Your task to perform on an android device: open app "McDonald's" (install if not already installed), go to login, and select forgot password Image 0: 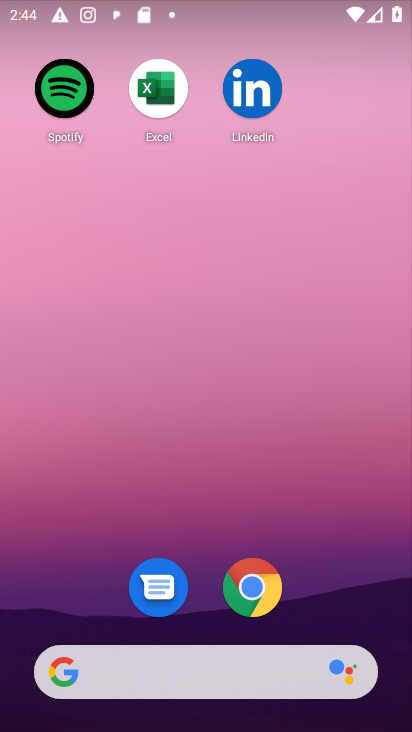
Step 0: press home button
Your task to perform on an android device: open app "McDonald's" (install if not already installed), go to login, and select forgot password Image 1: 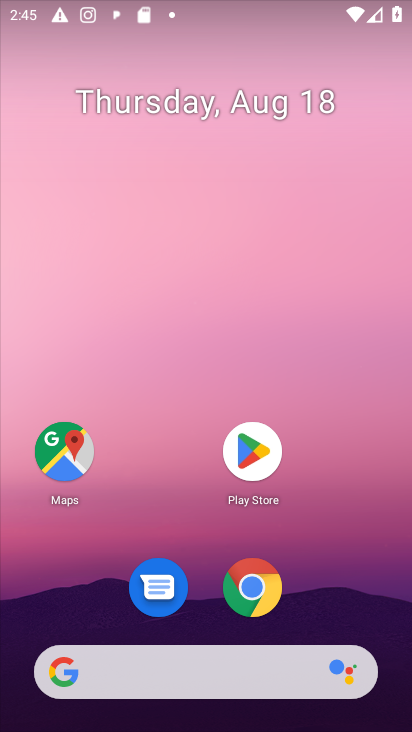
Step 1: click (242, 454)
Your task to perform on an android device: open app "McDonald's" (install if not already installed), go to login, and select forgot password Image 2: 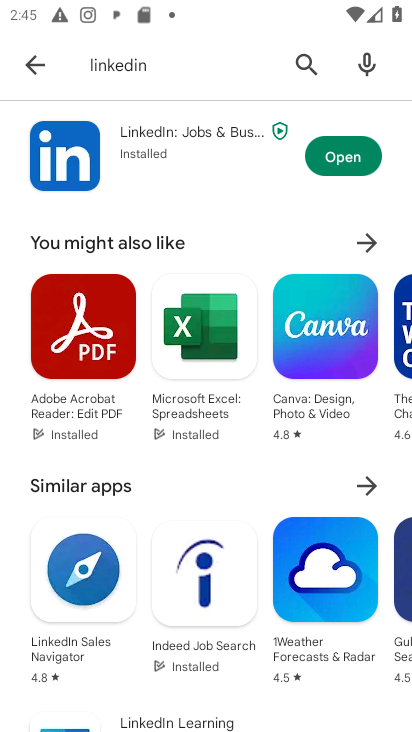
Step 2: click (308, 70)
Your task to perform on an android device: open app "McDonald's" (install if not already installed), go to login, and select forgot password Image 3: 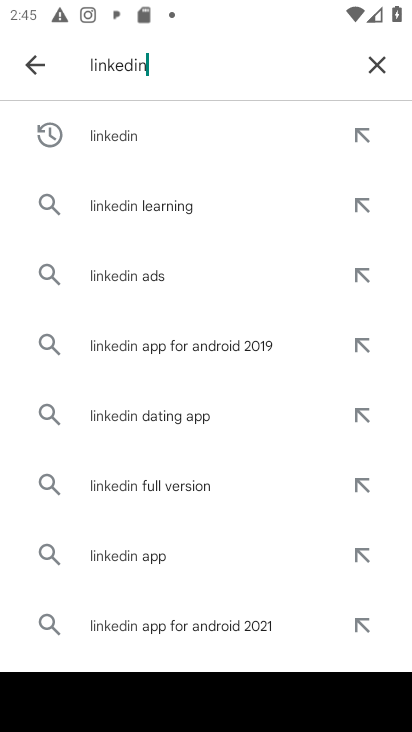
Step 3: click (373, 61)
Your task to perform on an android device: open app "McDonald's" (install if not already installed), go to login, and select forgot password Image 4: 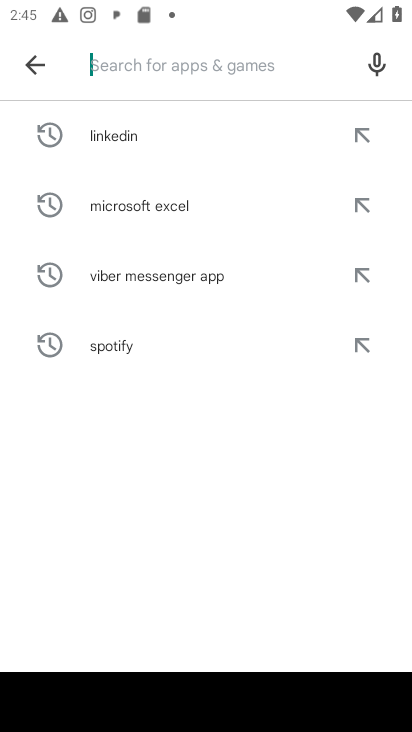
Step 4: type "McDonald's"
Your task to perform on an android device: open app "McDonald's" (install if not already installed), go to login, and select forgot password Image 5: 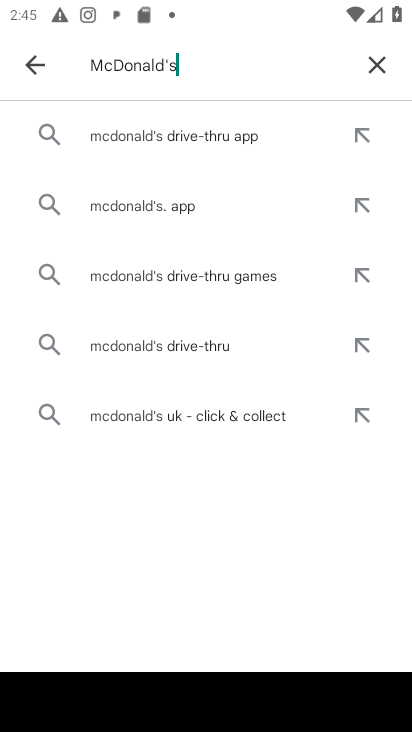
Step 5: click (207, 134)
Your task to perform on an android device: open app "McDonald's" (install if not already installed), go to login, and select forgot password Image 6: 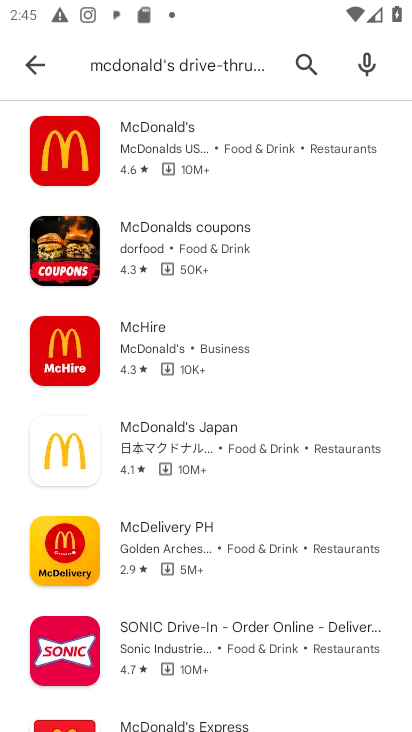
Step 6: click (193, 144)
Your task to perform on an android device: open app "McDonald's" (install if not already installed), go to login, and select forgot password Image 7: 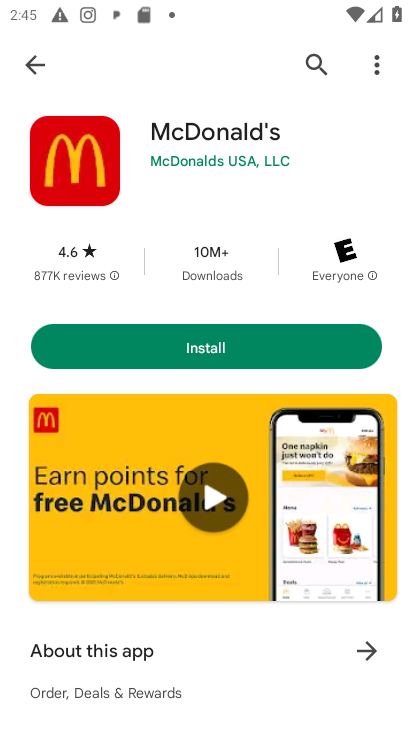
Step 7: click (210, 350)
Your task to perform on an android device: open app "McDonald's" (install if not already installed), go to login, and select forgot password Image 8: 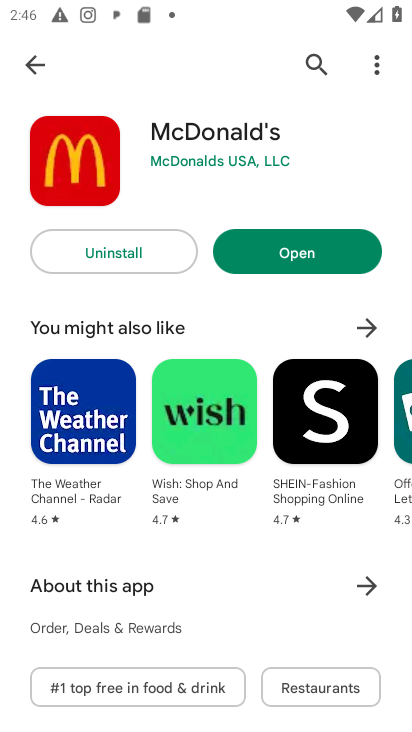
Step 8: click (311, 248)
Your task to perform on an android device: open app "McDonald's" (install if not already installed), go to login, and select forgot password Image 9: 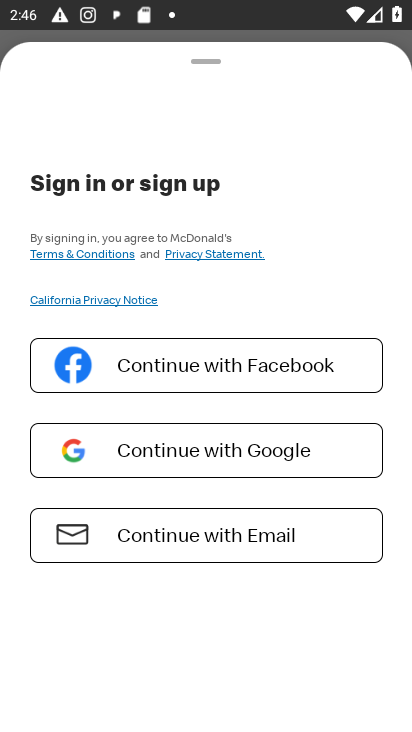
Step 9: click (192, 533)
Your task to perform on an android device: open app "McDonald's" (install if not already installed), go to login, and select forgot password Image 10: 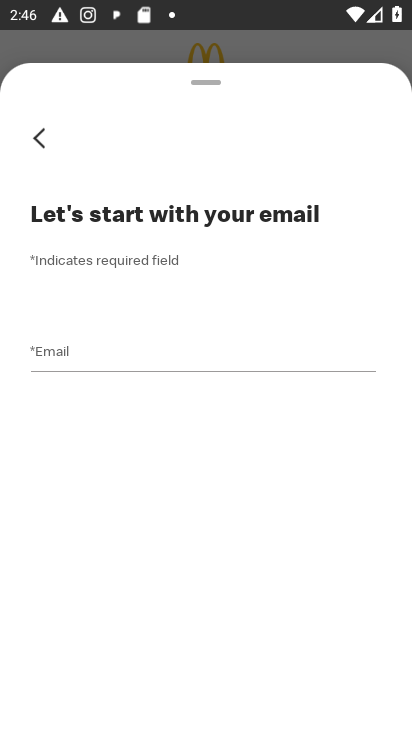
Step 10: task complete